Your task to perform on an android device: Open battery settings Image 0: 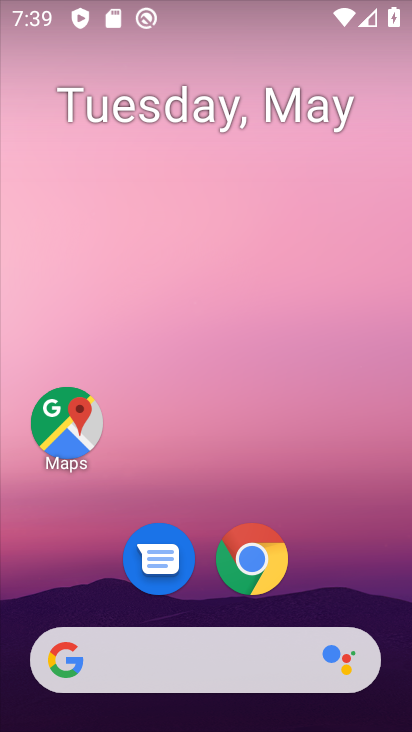
Step 0: drag from (372, 586) to (363, 96)
Your task to perform on an android device: Open battery settings Image 1: 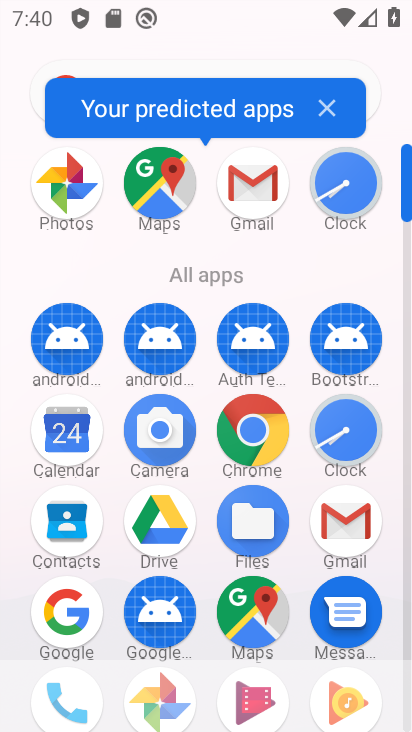
Step 1: drag from (391, 578) to (400, 301)
Your task to perform on an android device: Open battery settings Image 2: 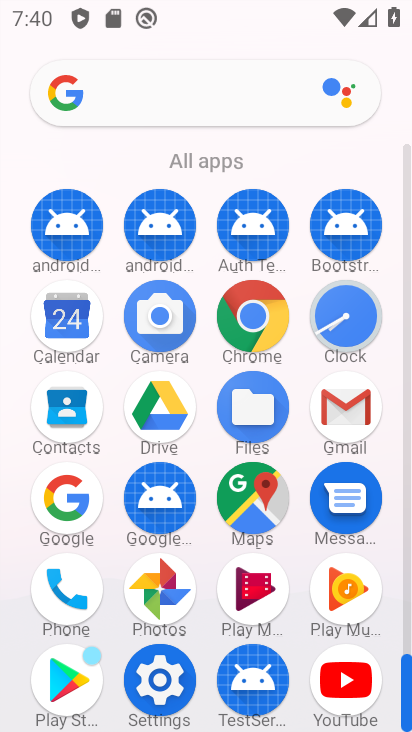
Step 2: click (158, 697)
Your task to perform on an android device: Open battery settings Image 3: 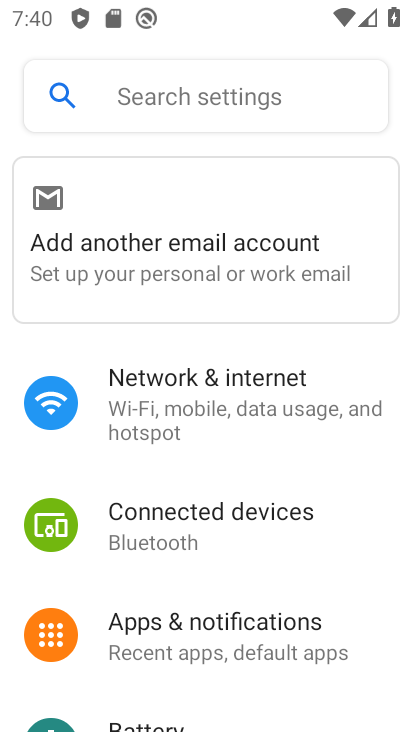
Step 3: drag from (378, 643) to (375, 444)
Your task to perform on an android device: Open battery settings Image 4: 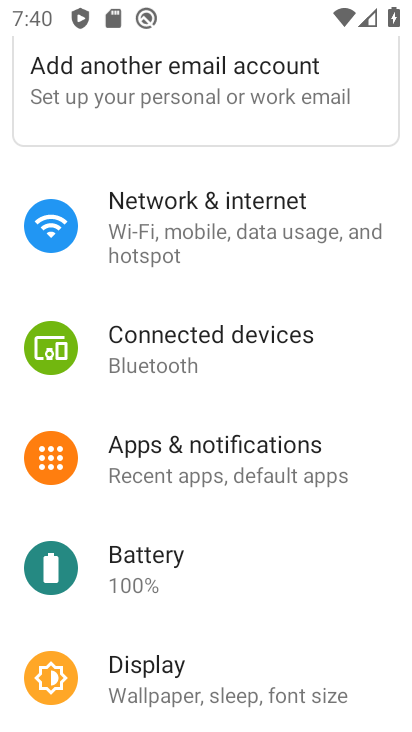
Step 4: drag from (352, 624) to (368, 345)
Your task to perform on an android device: Open battery settings Image 5: 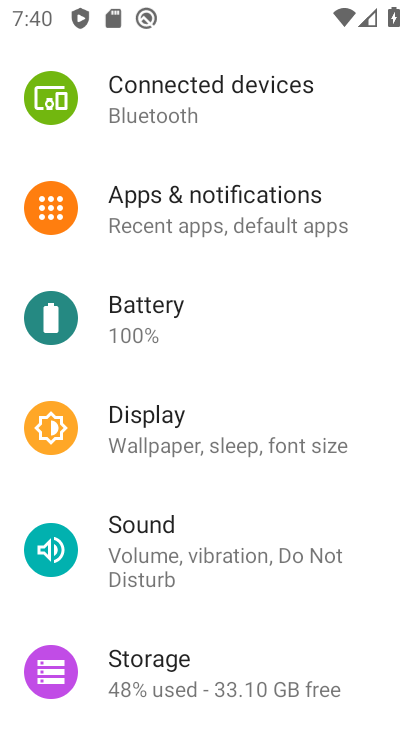
Step 5: drag from (348, 606) to (339, 377)
Your task to perform on an android device: Open battery settings Image 6: 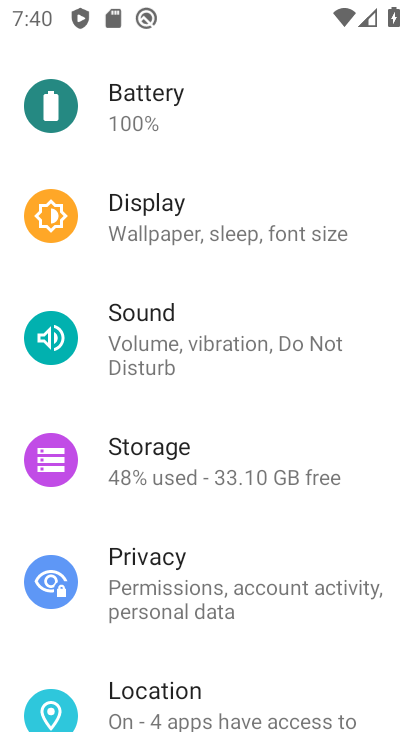
Step 6: drag from (361, 309) to (374, 501)
Your task to perform on an android device: Open battery settings Image 7: 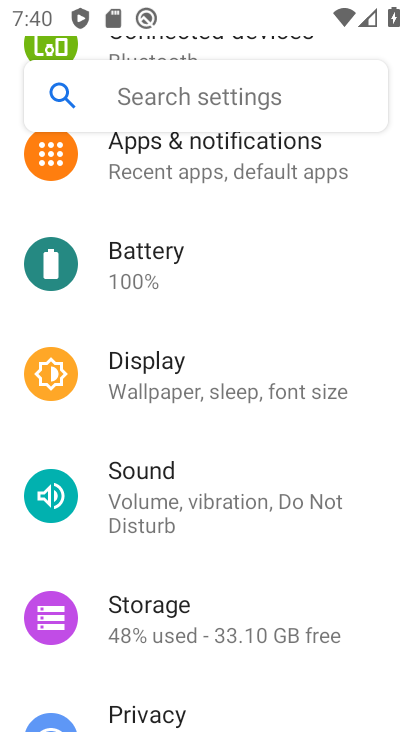
Step 7: drag from (362, 271) to (370, 494)
Your task to perform on an android device: Open battery settings Image 8: 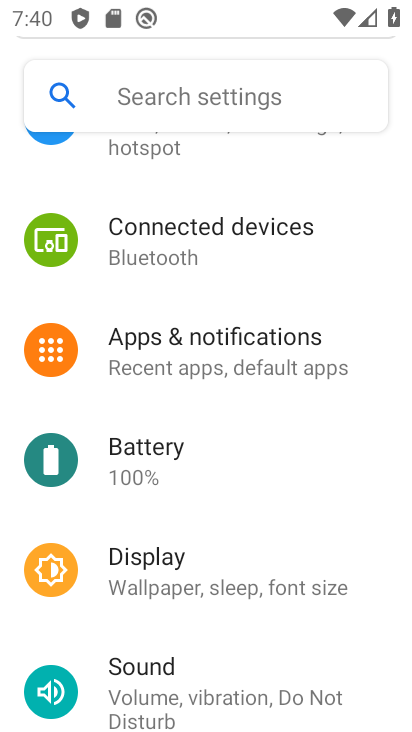
Step 8: click (187, 479)
Your task to perform on an android device: Open battery settings Image 9: 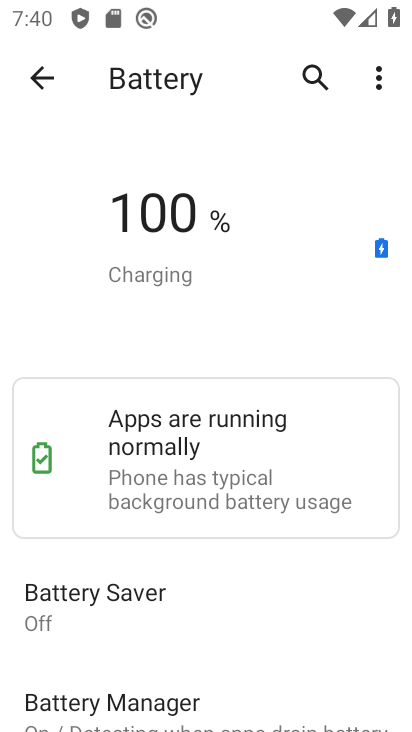
Step 9: task complete